Your task to perform on an android device: Open Android settings Image 0: 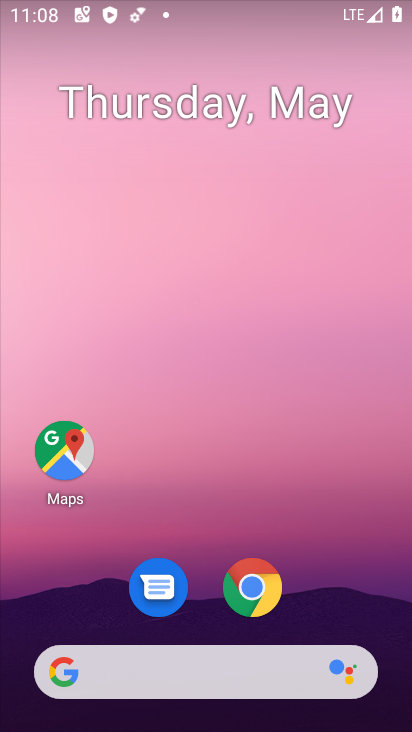
Step 0: drag from (61, 631) to (210, 109)
Your task to perform on an android device: Open Android settings Image 1: 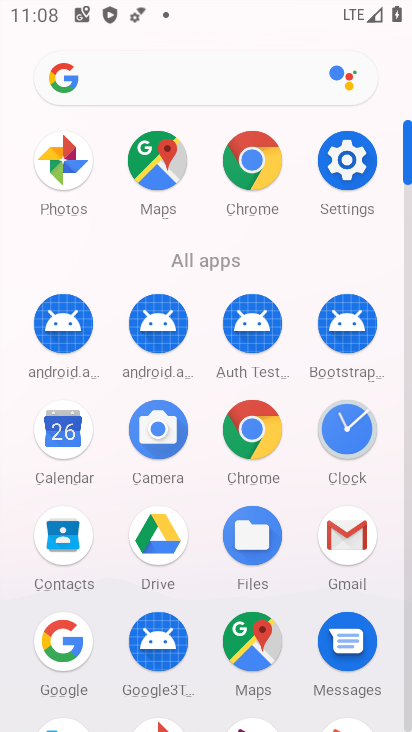
Step 1: drag from (199, 626) to (252, 407)
Your task to perform on an android device: Open Android settings Image 2: 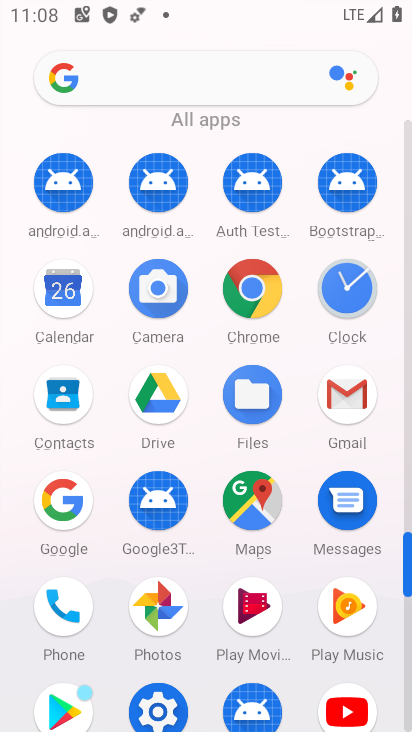
Step 2: click (168, 698)
Your task to perform on an android device: Open Android settings Image 3: 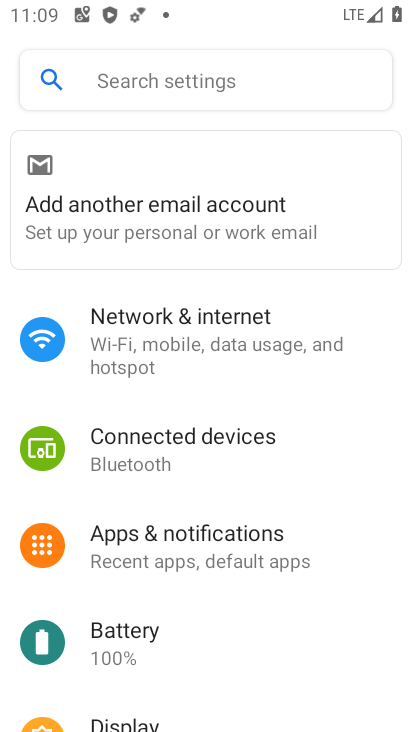
Step 3: task complete